Your task to perform on an android device: Go to calendar. Show me events next week Image 0: 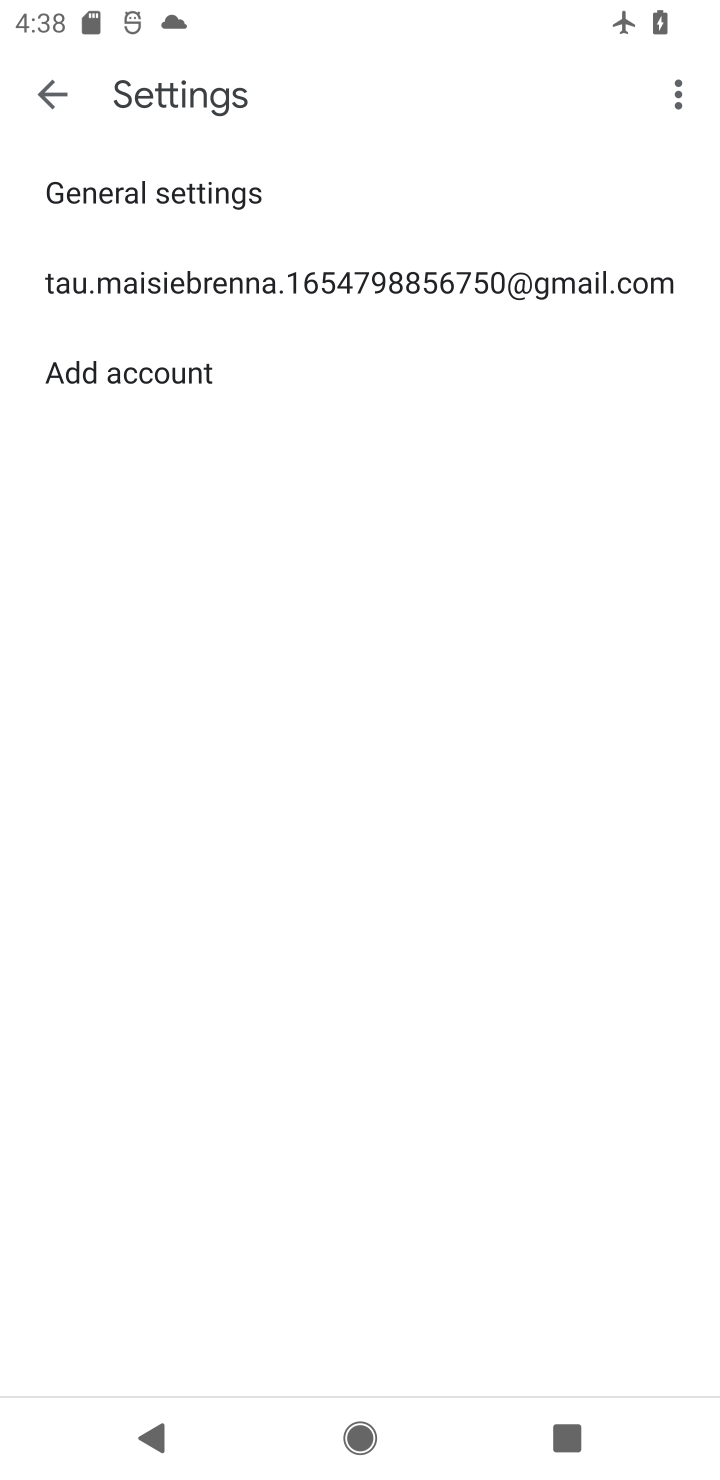
Step 0: press back button
Your task to perform on an android device: Go to calendar. Show me events next week Image 1: 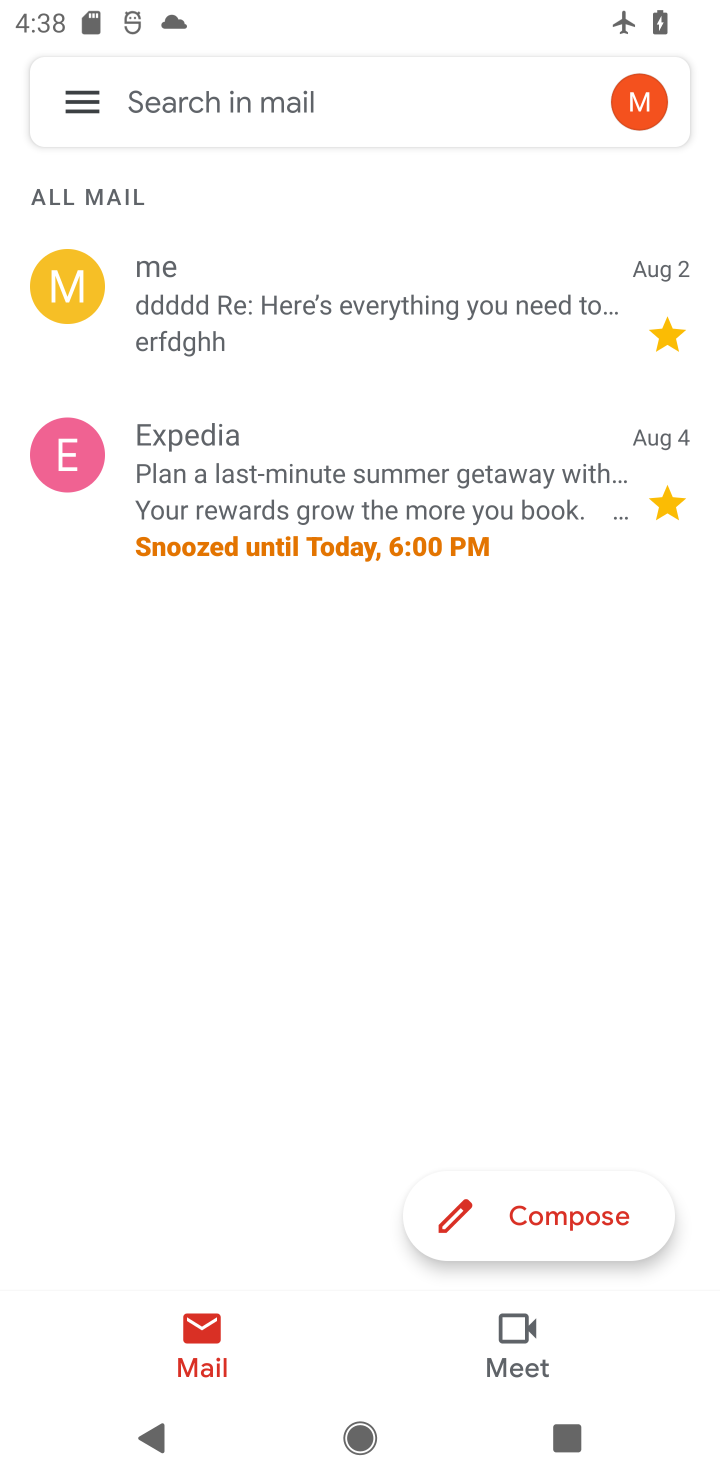
Step 1: press back button
Your task to perform on an android device: Go to calendar. Show me events next week Image 2: 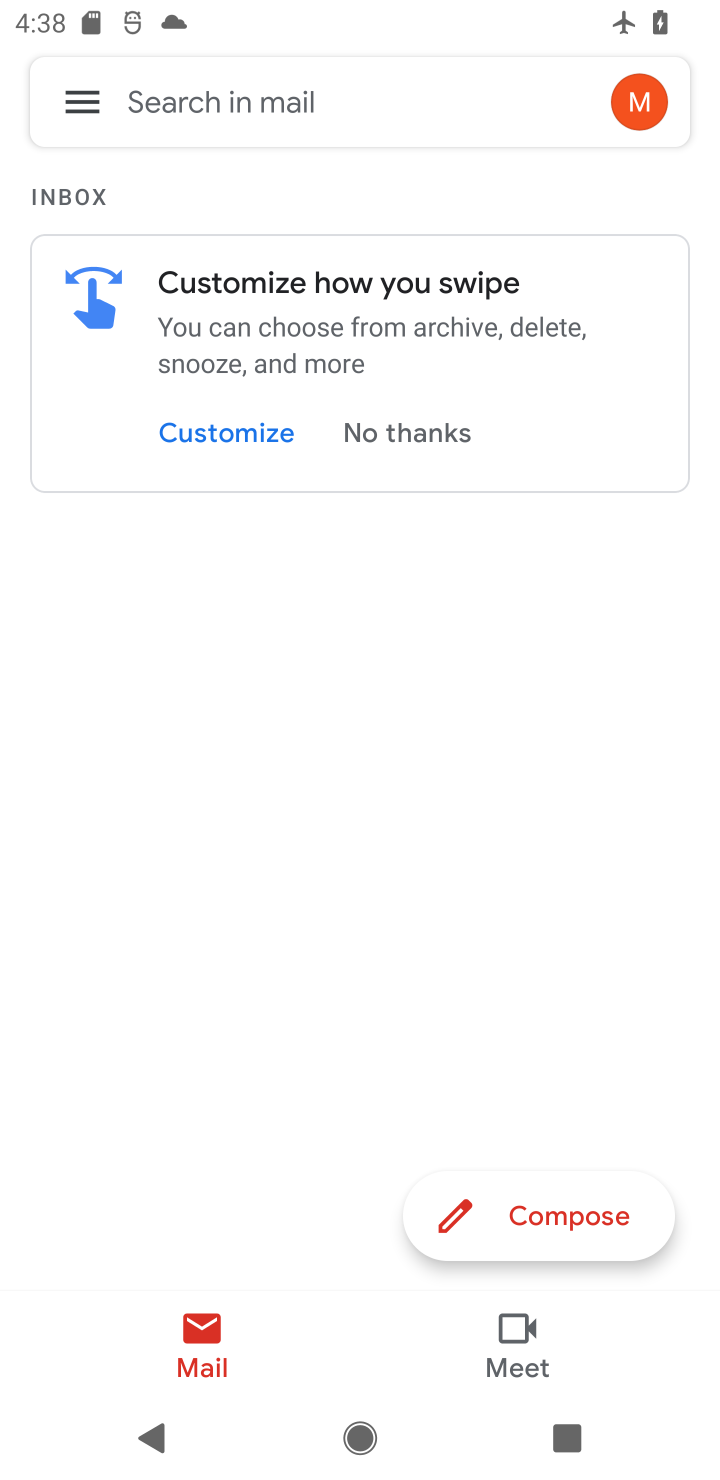
Step 2: press back button
Your task to perform on an android device: Go to calendar. Show me events next week Image 3: 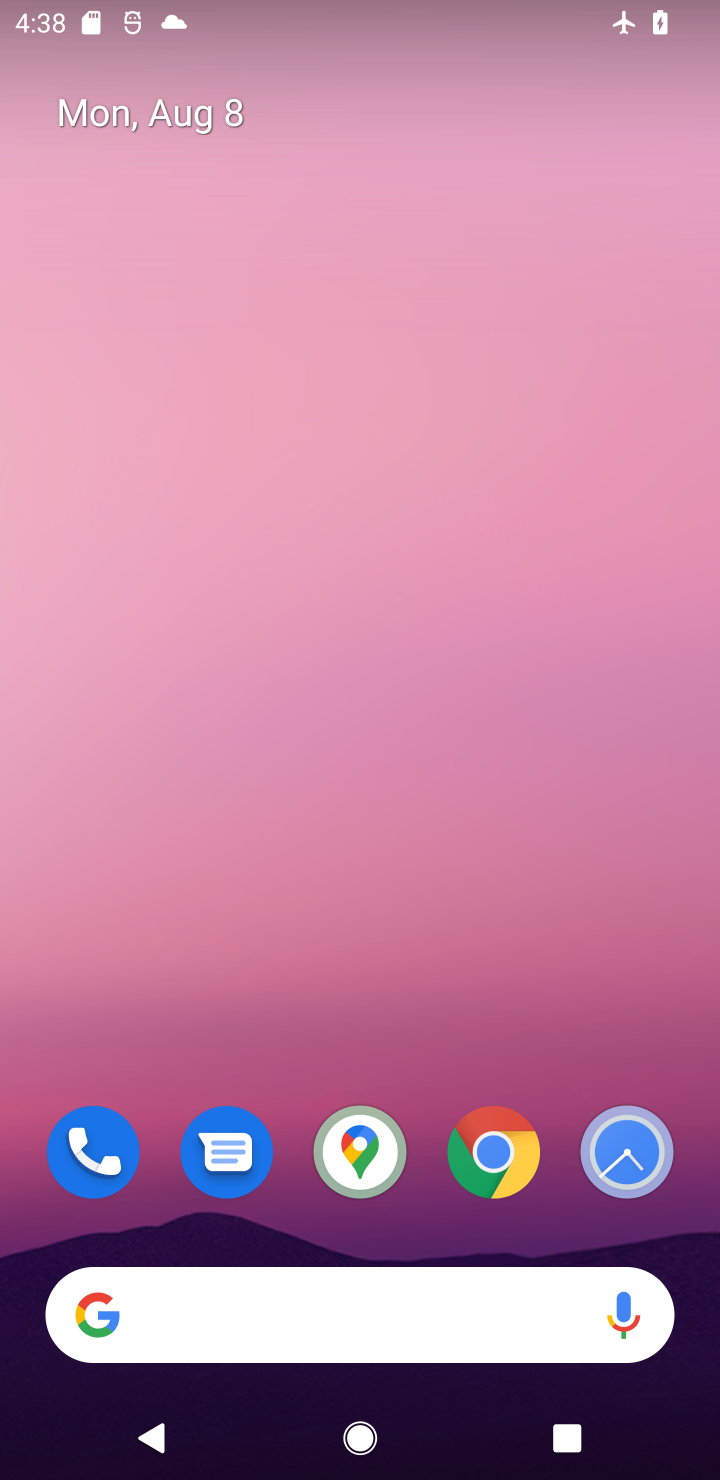
Step 3: drag from (231, 987) to (355, 0)
Your task to perform on an android device: Go to calendar. Show me events next week Image 4: 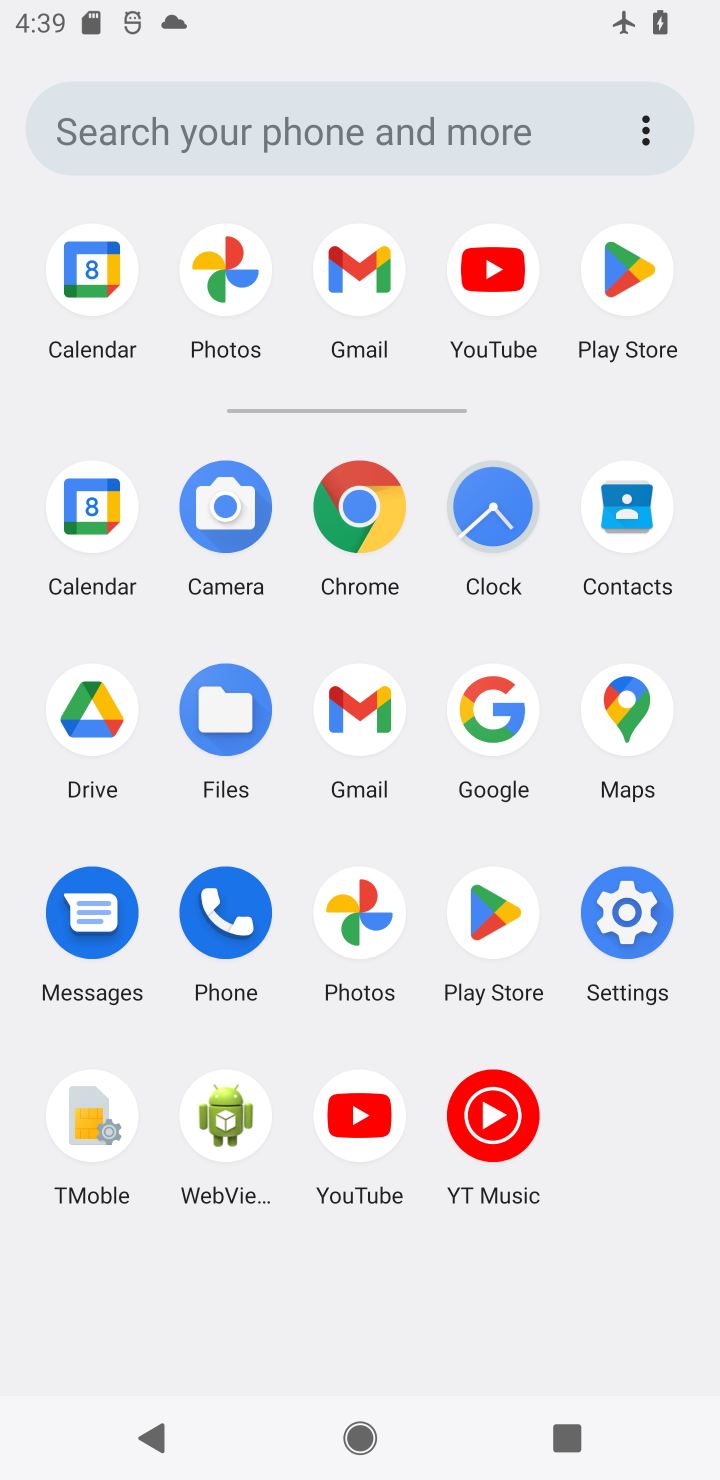
Step 4: click (100, 543)
Your task to perform on an android device: Go to calendar. Show me events next week Image 5: 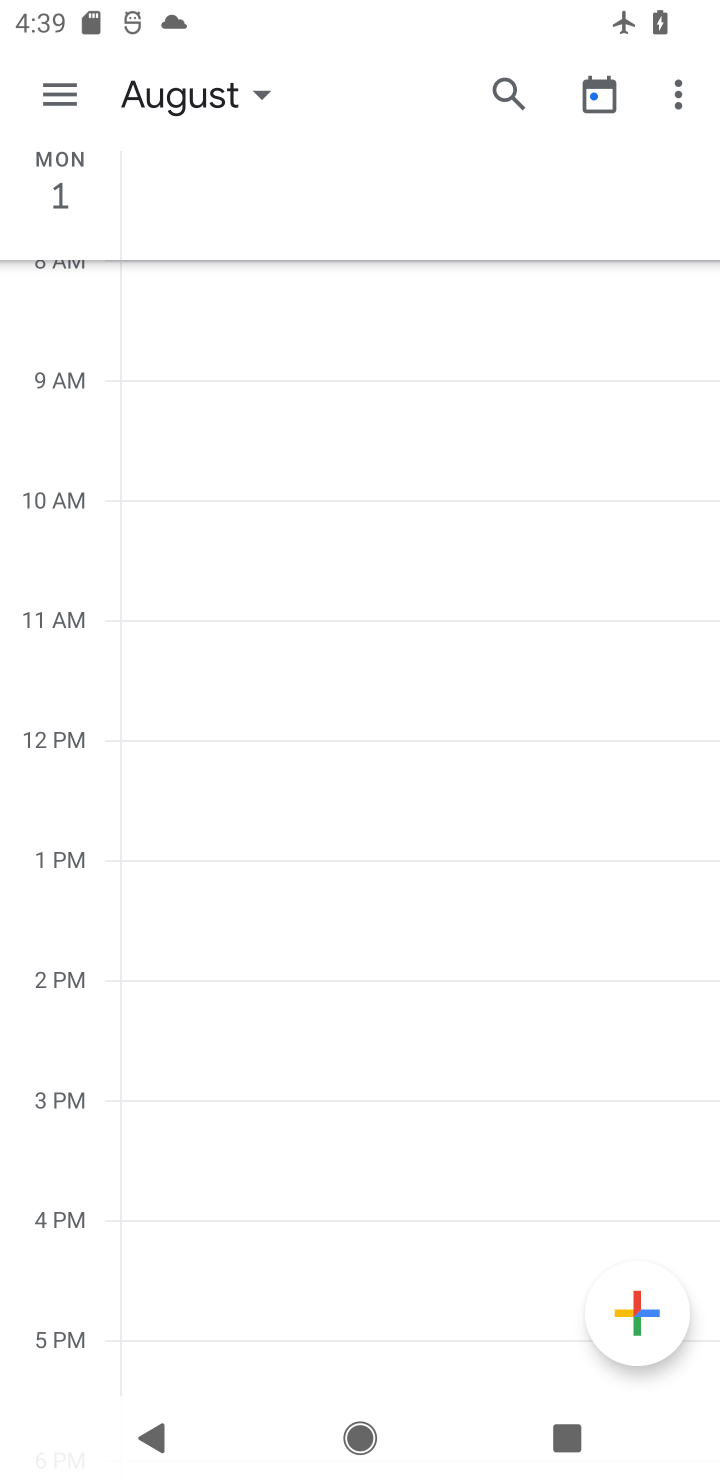
Step 5: click (77, 71)
Your task to perform on an android device: Go to calendar. Show me events next week Image 6: 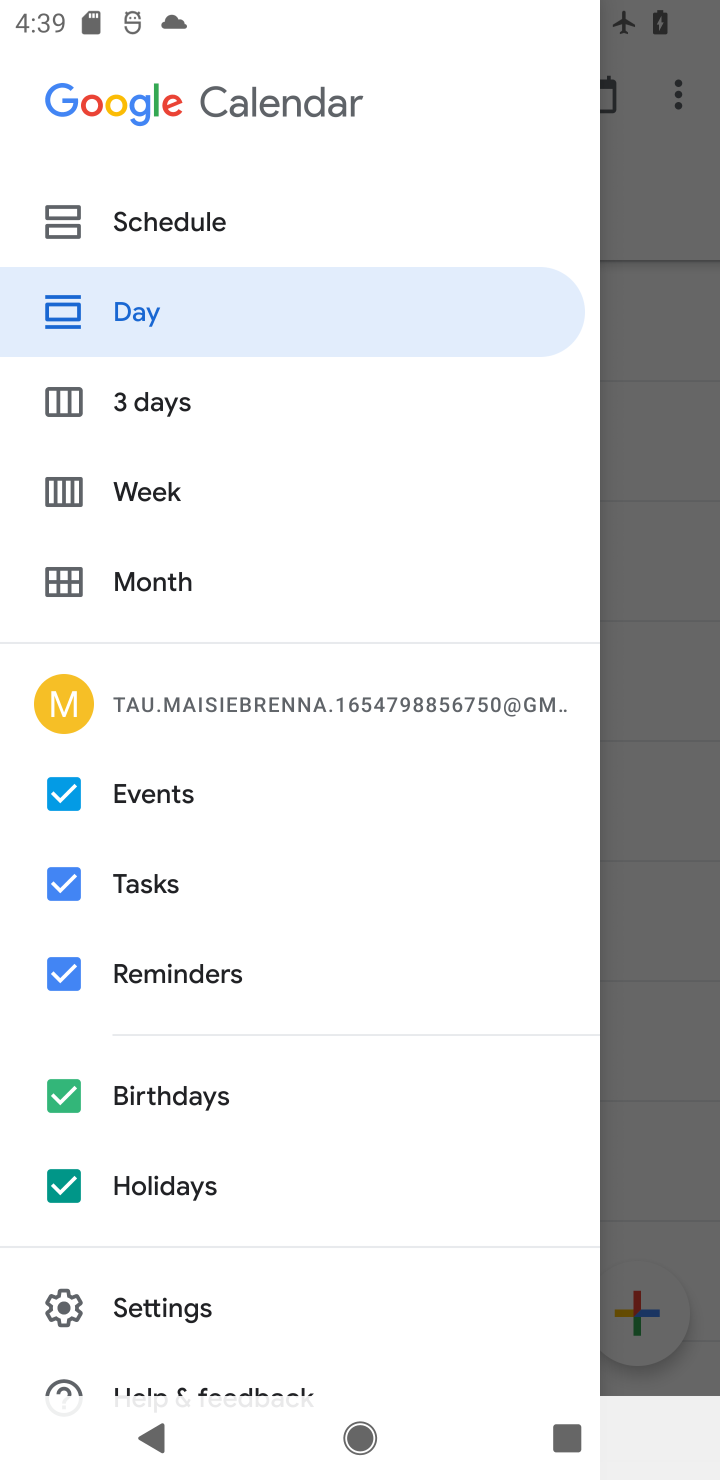
Step 6: click (181, 213)
Your task to perform on an android device: Go to calendar. Show me events next week Image 7: 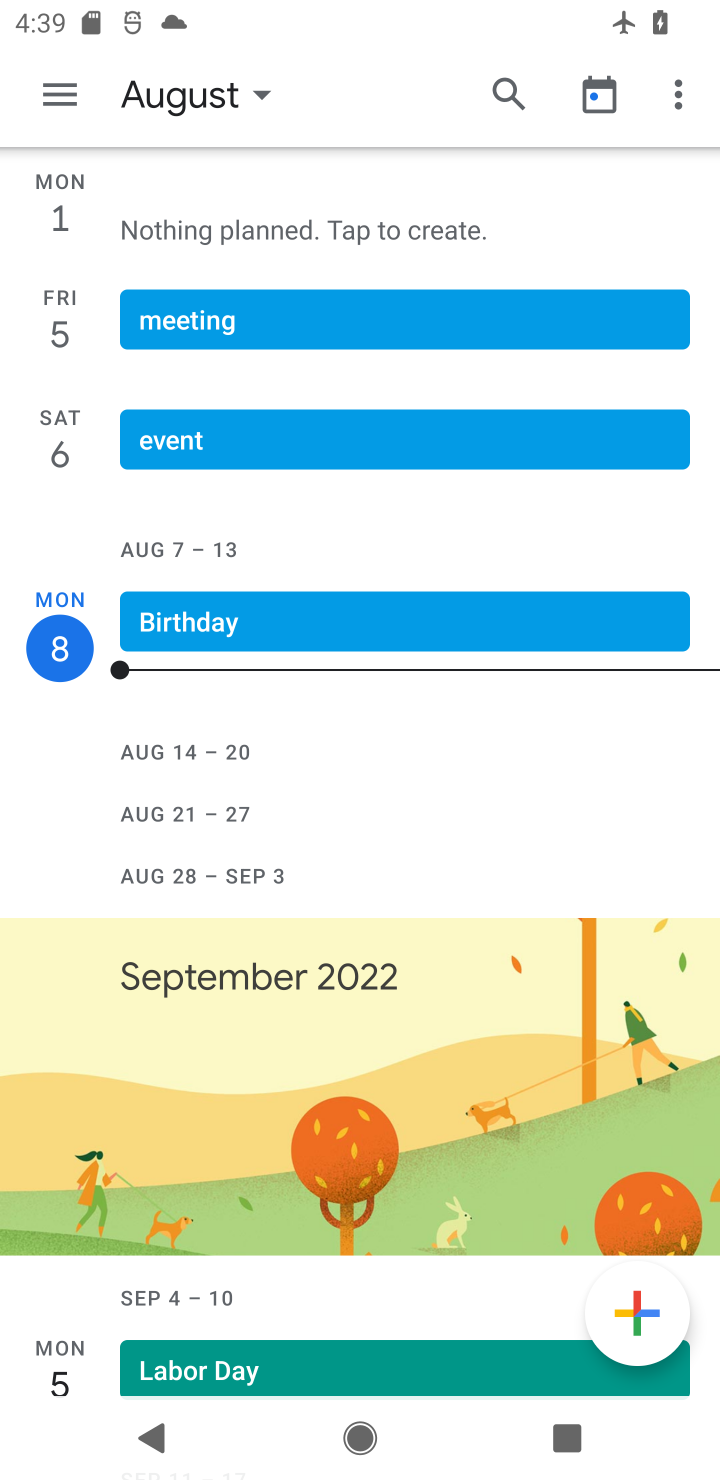
Step 7: click (192, 89)
Your task to perform on an android device: Go to calendar. Show me events next week Image 8: 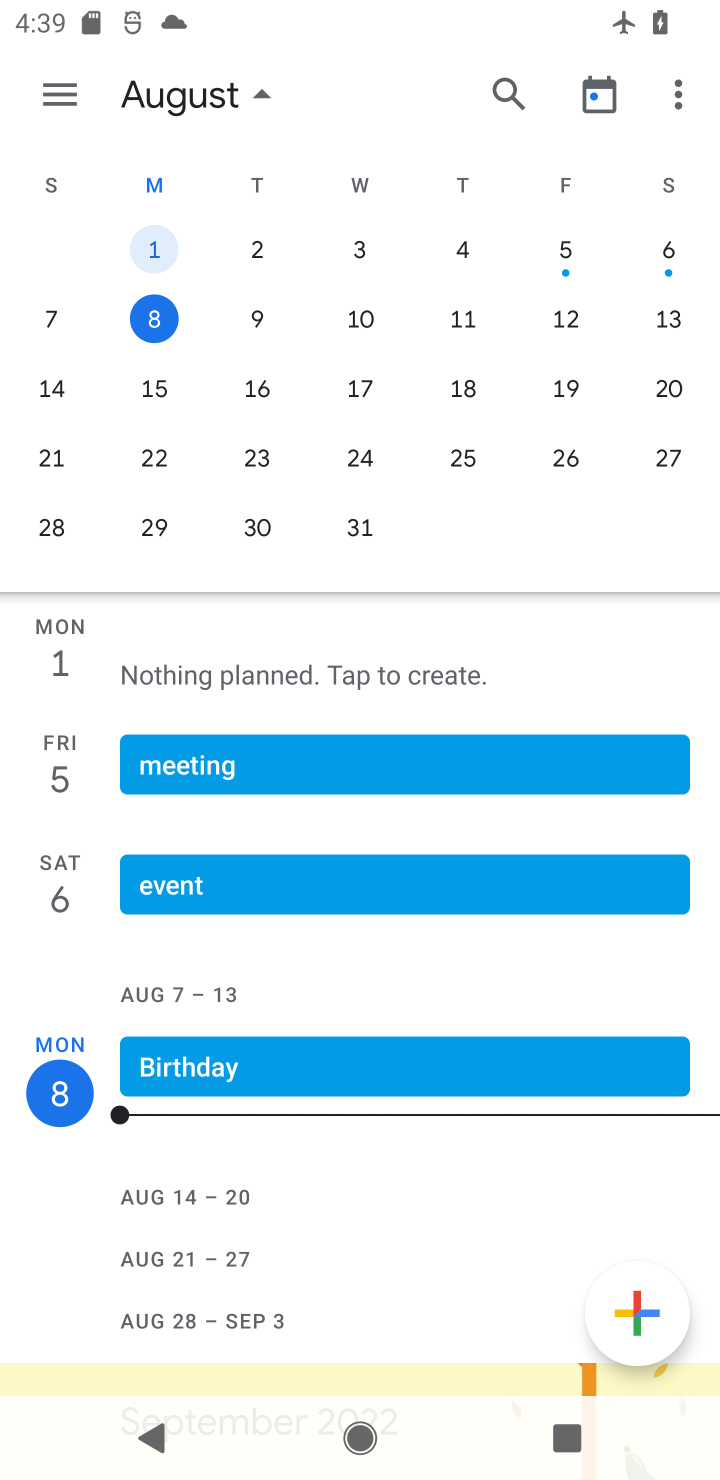
Step 8: click (160, 385)
Your task to perform on an android device: Go to calendar. Show me events next week Image 9: 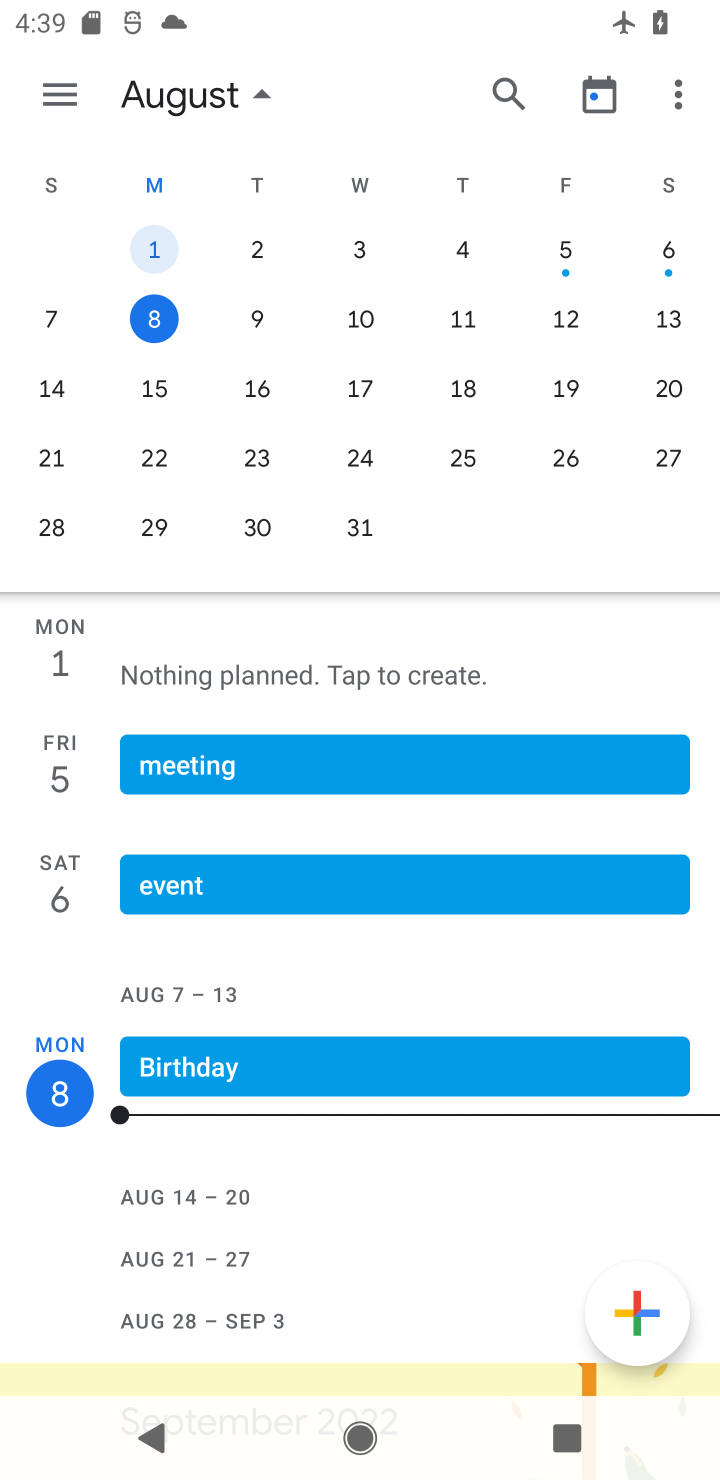
Step 9: click (148, 380)
Your task to perform on an android device: Go to calendar. Show me events next week Image 10: 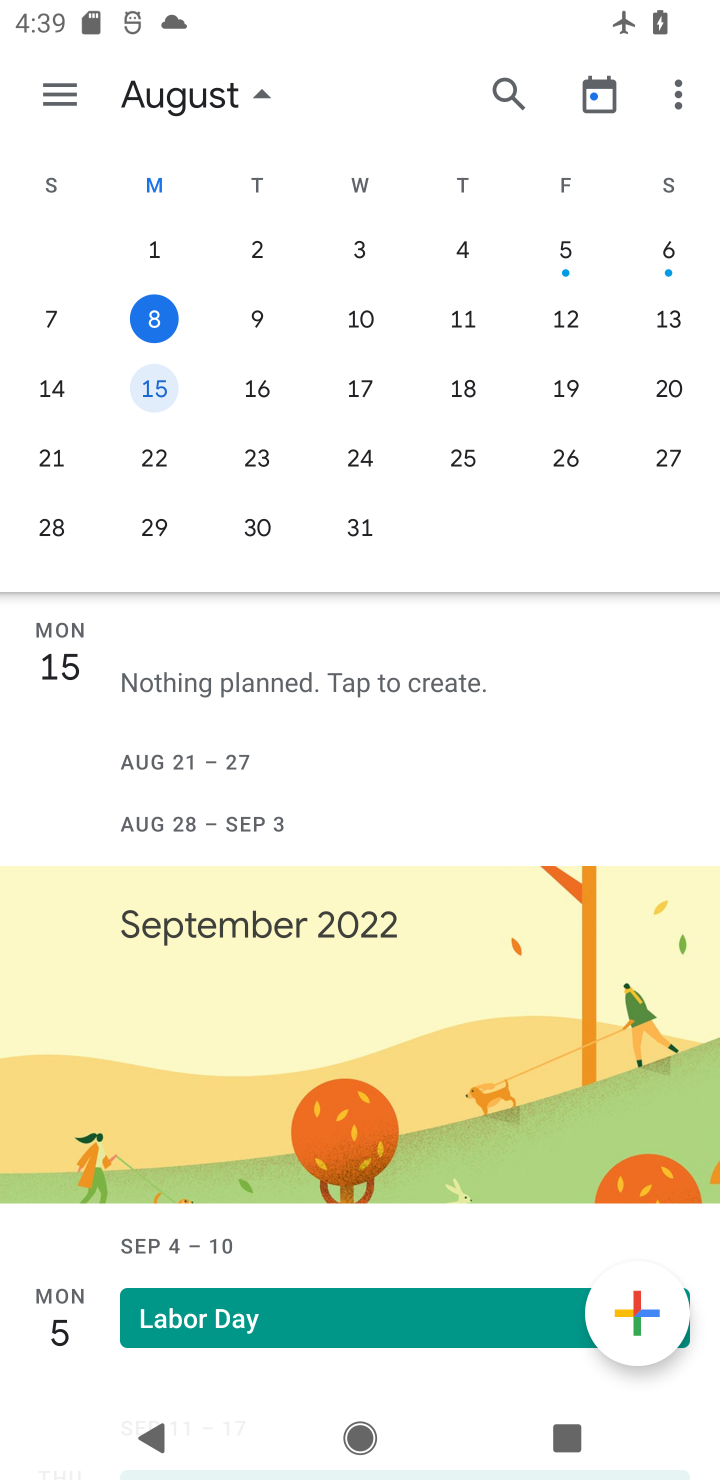
Step 10: task complete